Your task to perform on an android device: Open privacy settings Image 0: 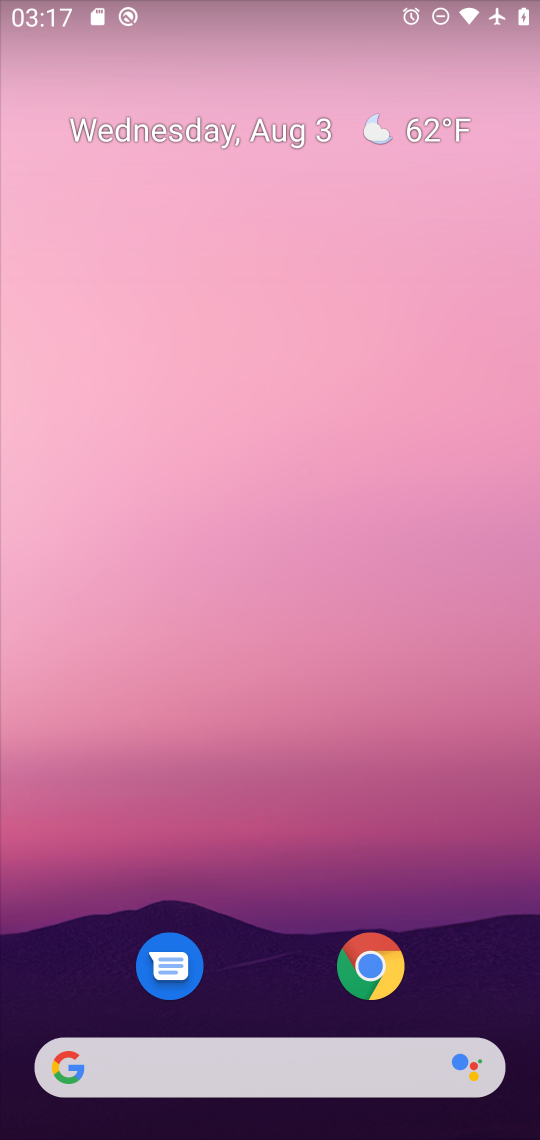
Step 0: drag from (239, 973) to (257, 316)
Your task to perform on an android device: Open privacy settings Image 1: 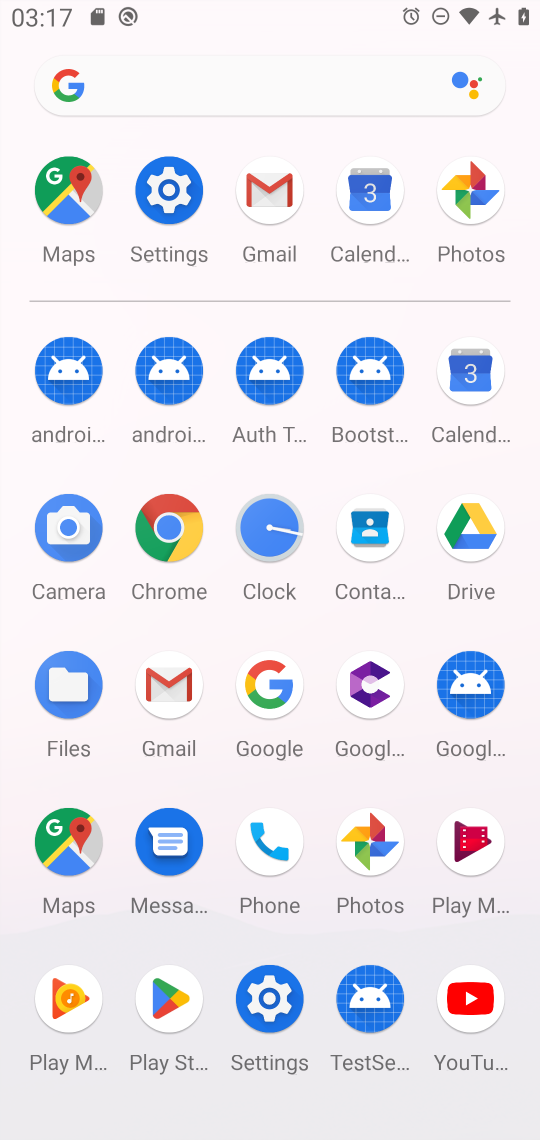
Step 1: click (158, 195)
Your task to perform on an android device: Open privacy settings Image 2: 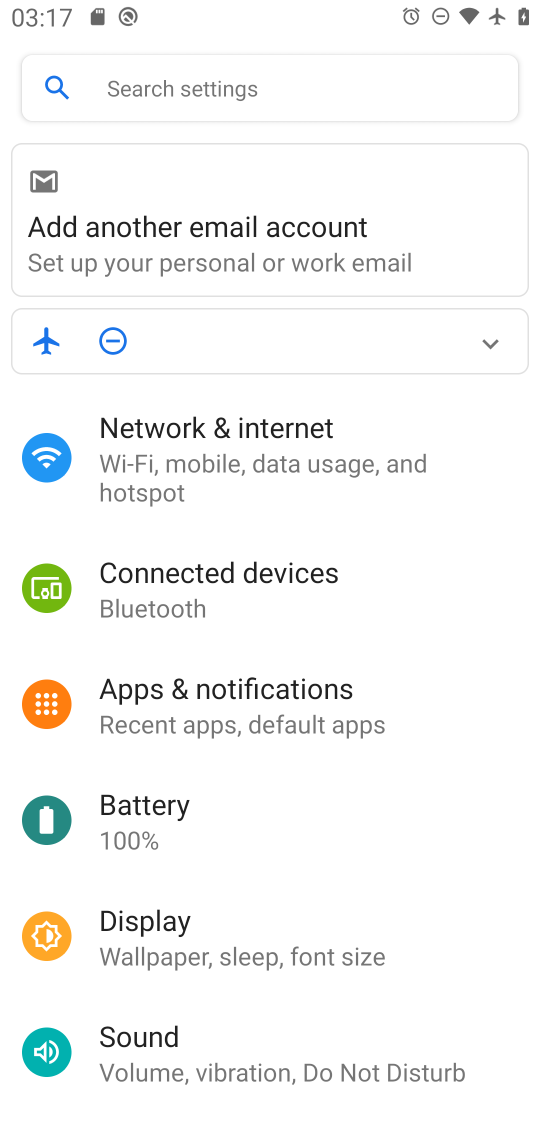
Step 2: drag from (248, 1010) to (276, 643)
Your task to perform on an android device: Open privacy settings Image 3: 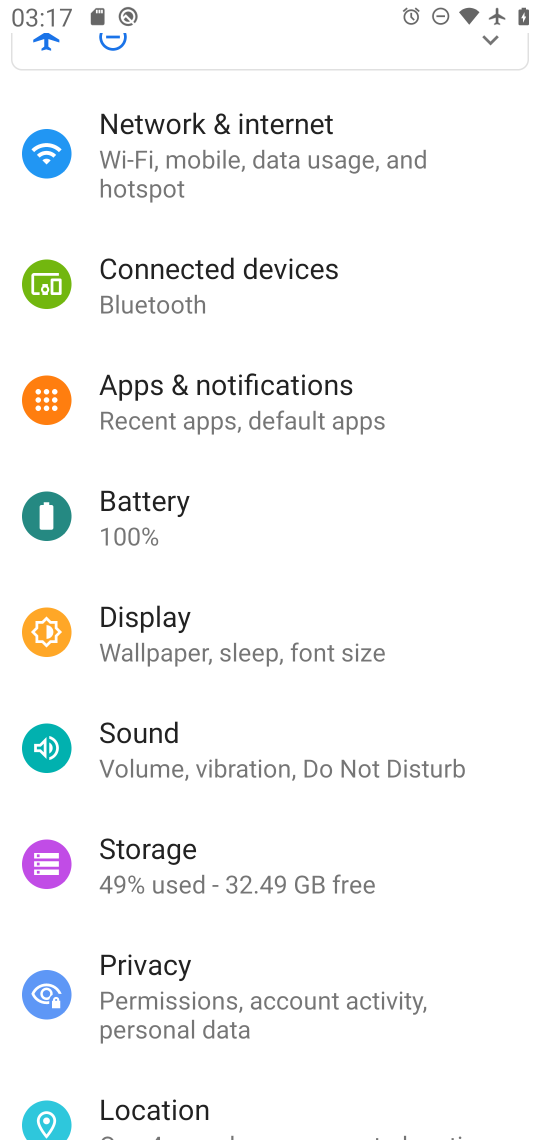
Step 3: click (239, 973)
Your task to perform on an android device: Open privacy settings Image 4: 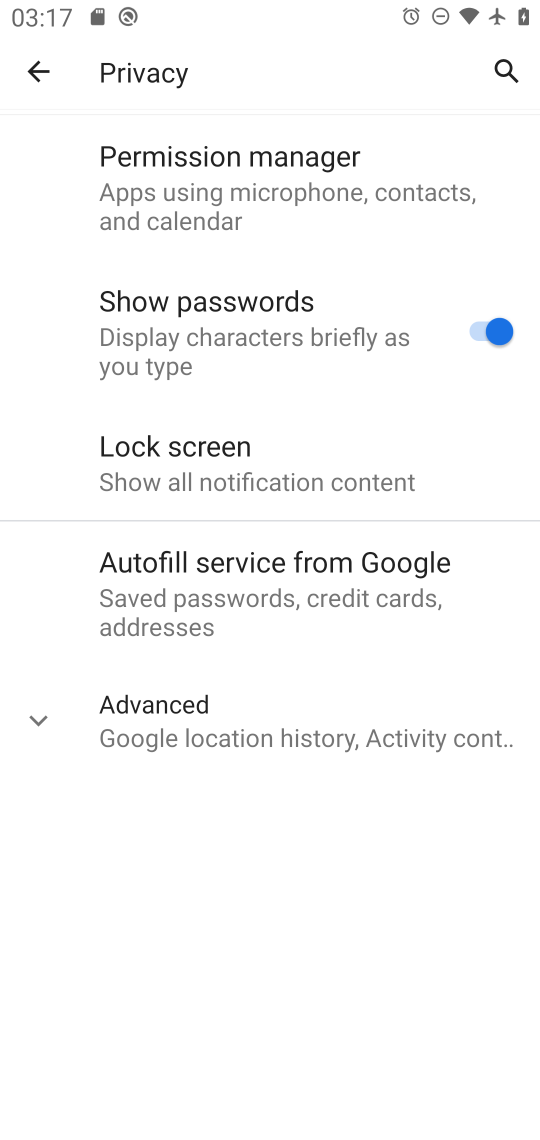
Step 4: task complete